Your task to perform on an android device: check out phone information Image 0: 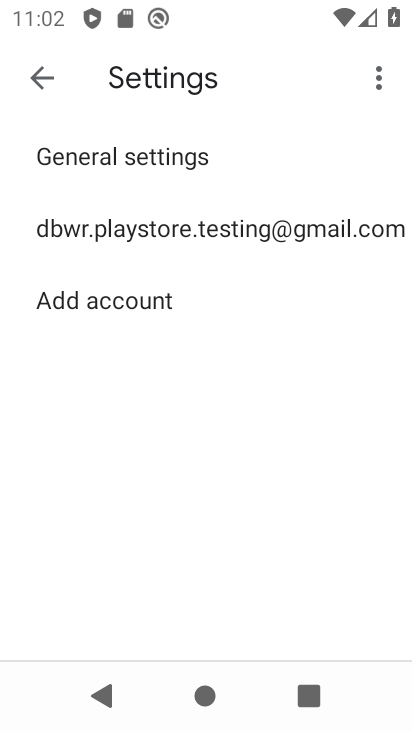
Step 0: press home button
Your task to perform on an android device: check out phone information Image 1: 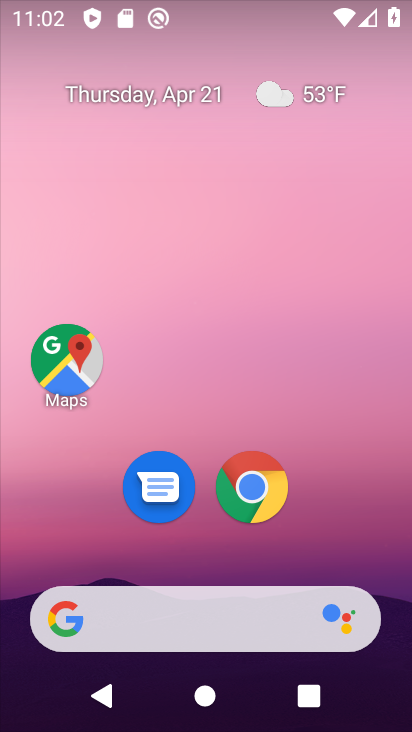
Step 1: drag from (326, 502) to (349, 90)
Your task to perform on an android device: check out phone information Image 2: 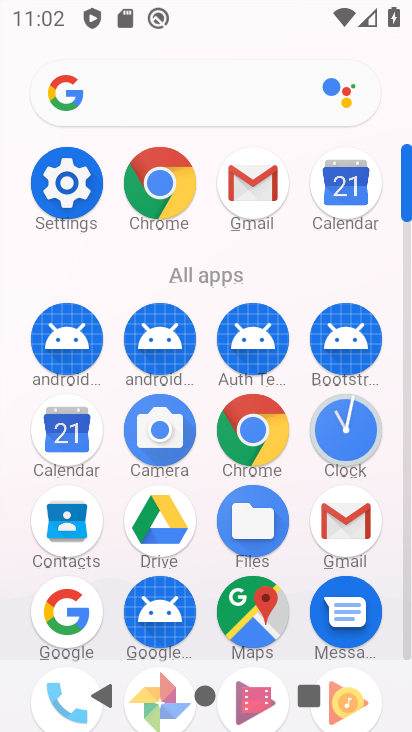
Step 2: click (95, 175)
Your task to perform on an android device: check out phone information Image 3: 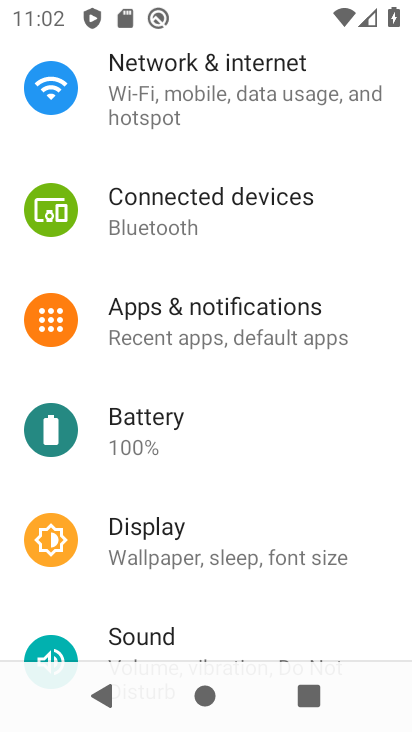
Step 3: drag from (303, 508) to (351, 100)
Your task to perform on an android device: check out phone information Image 4: 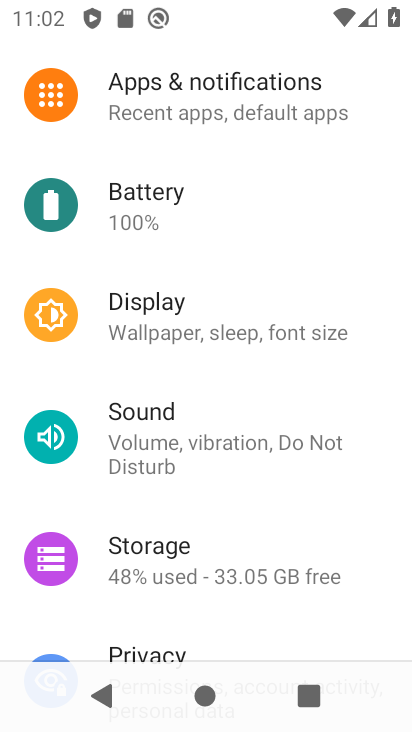
Step 4: drag from (259, 545) to (321, 110)
Your task to perform on an android device: check out phone information Image 5: 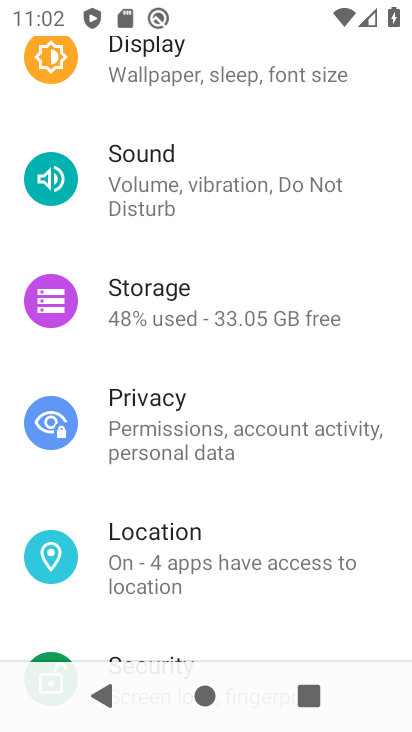
Step 5: drag from (242, 546) to (250, 174)
Your task to perform on an android device: check out phone information Image 6: 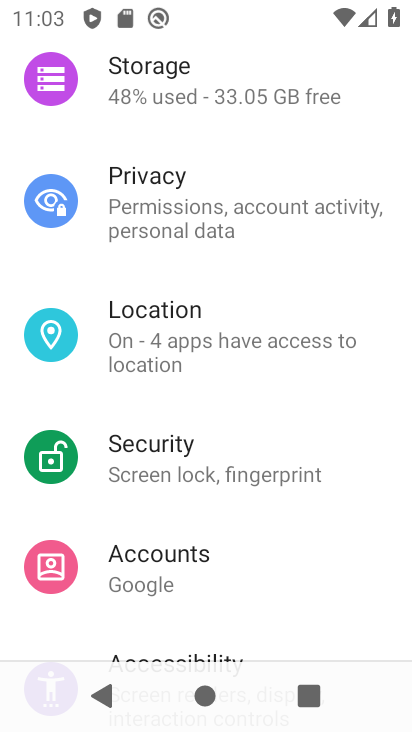
Step 6: drag from (210, 499) to (281, 216)
Your task to perform on an android device: check out phone information Image 7: 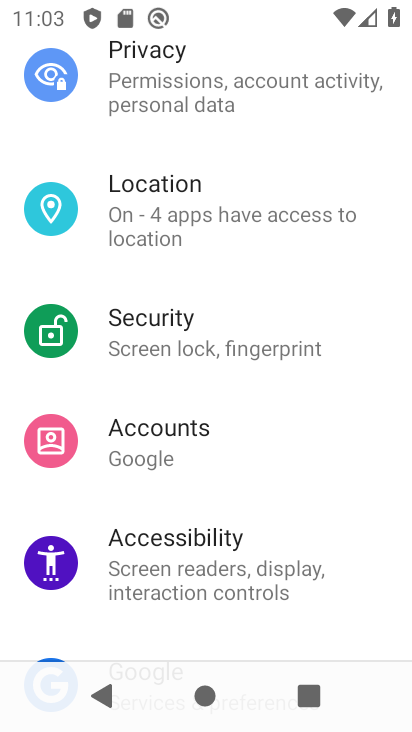
Step 7: drag from (164, 622) to (234, 182)
Your task to perform on an android device: check out phone information Image 8: 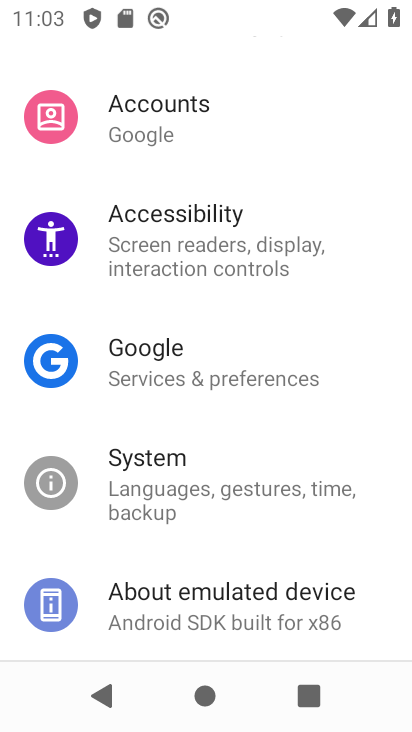
Step 8: drag from (222, 580) to (254, 240)
Your task to perform on an android device: check out phone information Image 9: 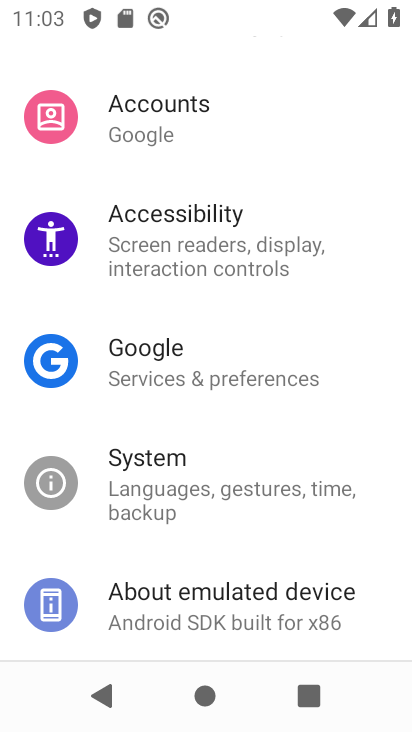
Step 9: click (214, 605)
Your task to perform on an android device: check out phone information Image 10: 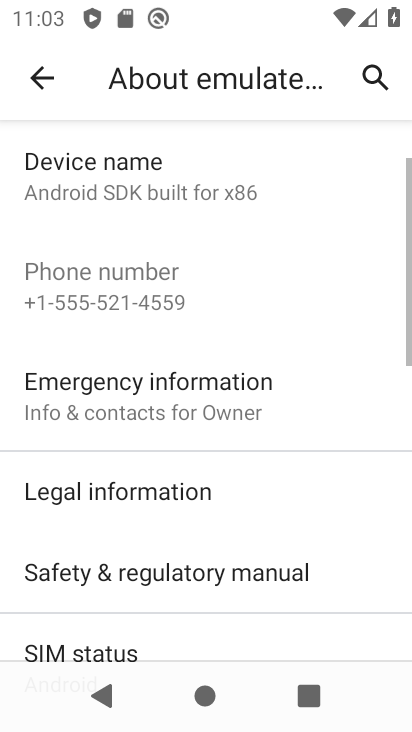
Step 10: drag from (134, 514) to (197, 143)
Your task to perform on an android device: check out phone information Image 11: 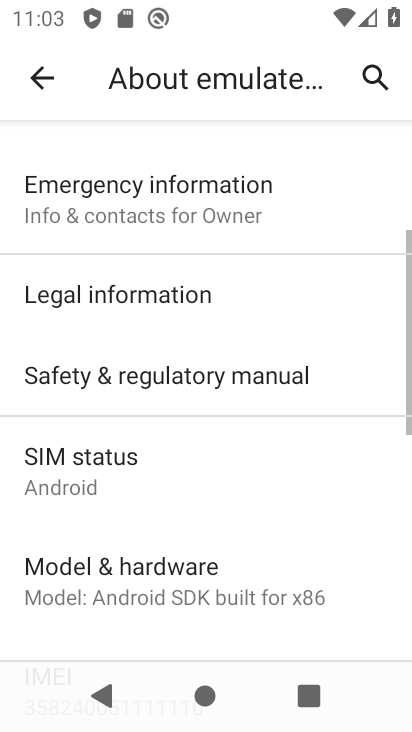
Step 11: drag from (155, 546) to (282, 118)
Your task to perform on an android device: check out phone information Image 12: 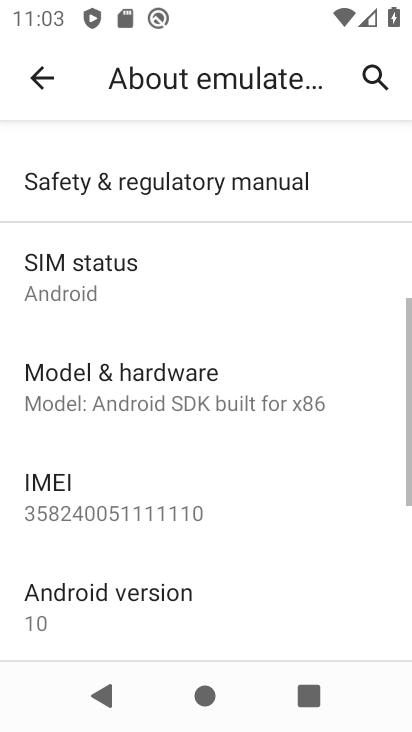
Step 12: drag from (167, 589) to (262, 249)
Your task to perform on an android device: check out phone information Image 13: 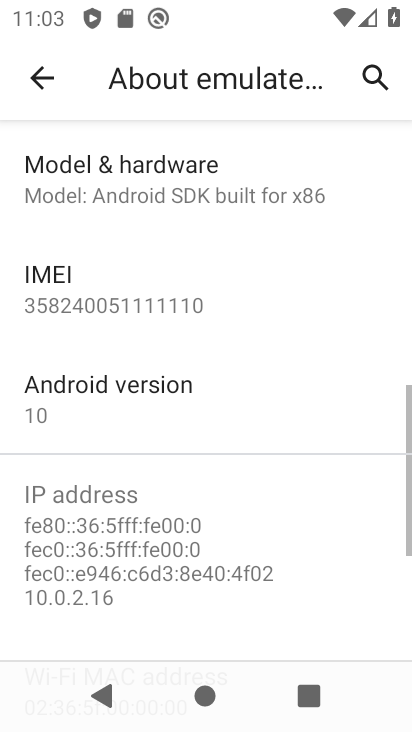
Step 13: drag from (191, 574) to (226, 226)
Your task to perform on an android device: check out phone information Image 14: 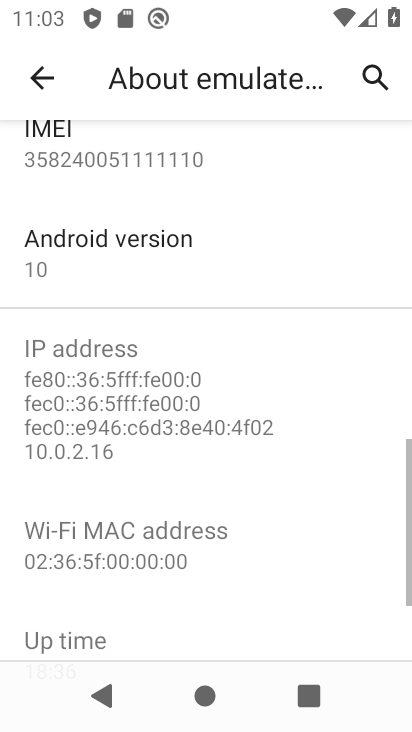
Step 14: click (141, 260)
Your task to perform on an android device: check out phone information Image 15: 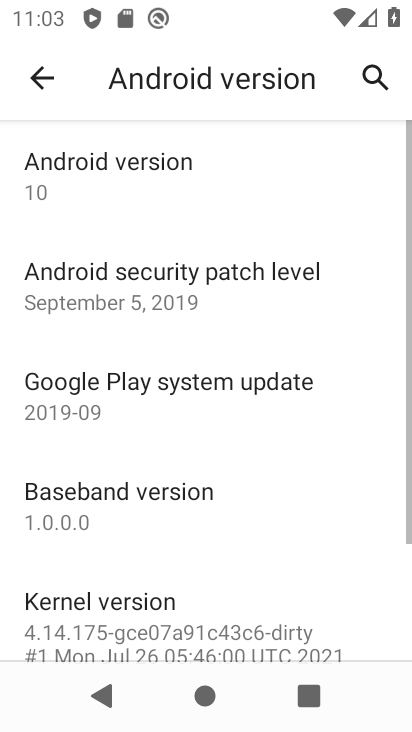
Step 15: task complete